Your task to perform on an android device: Add "logitech g502" to the cart on costco, then select checkout. Image 0: 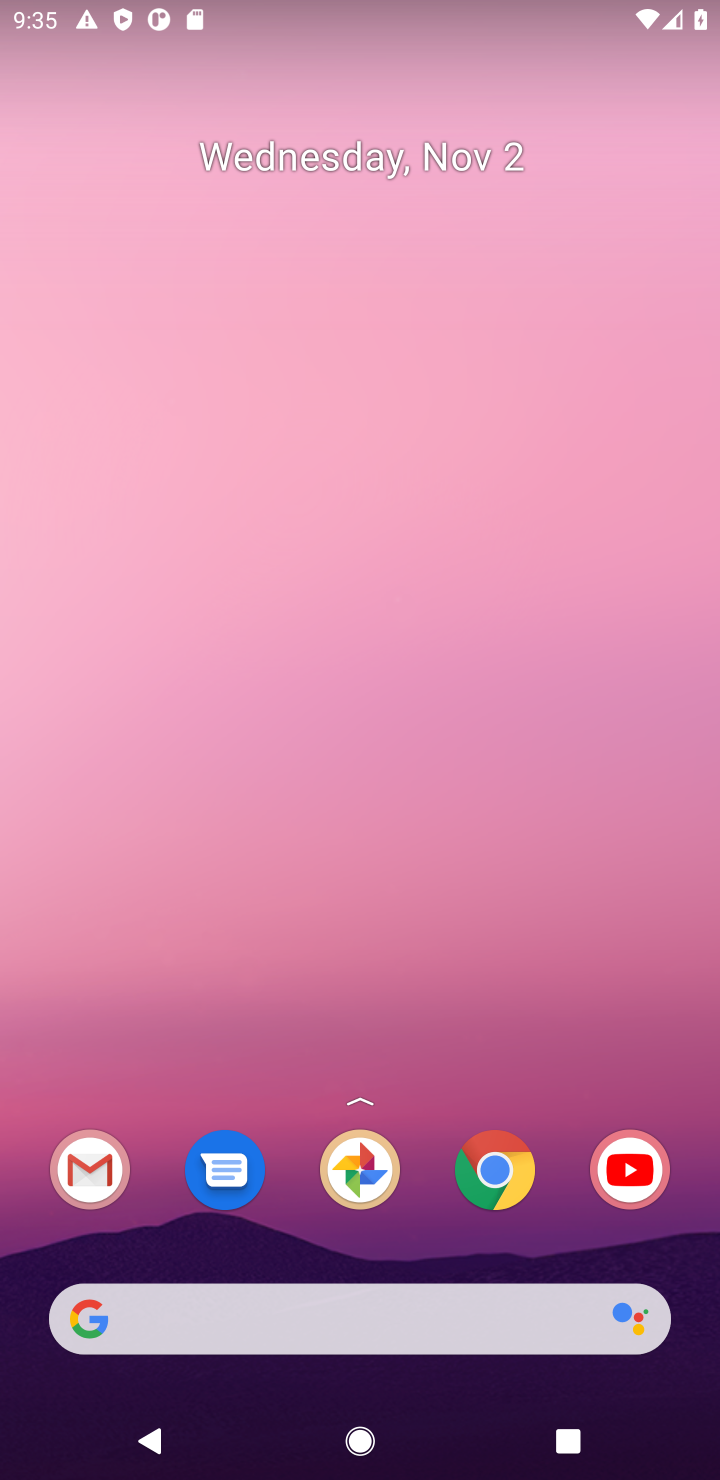
Step 0: click (507, 1150)
Your task to perform on an android device: Add "logitech g502" to the cart on costco, then select checkout. Image 1: 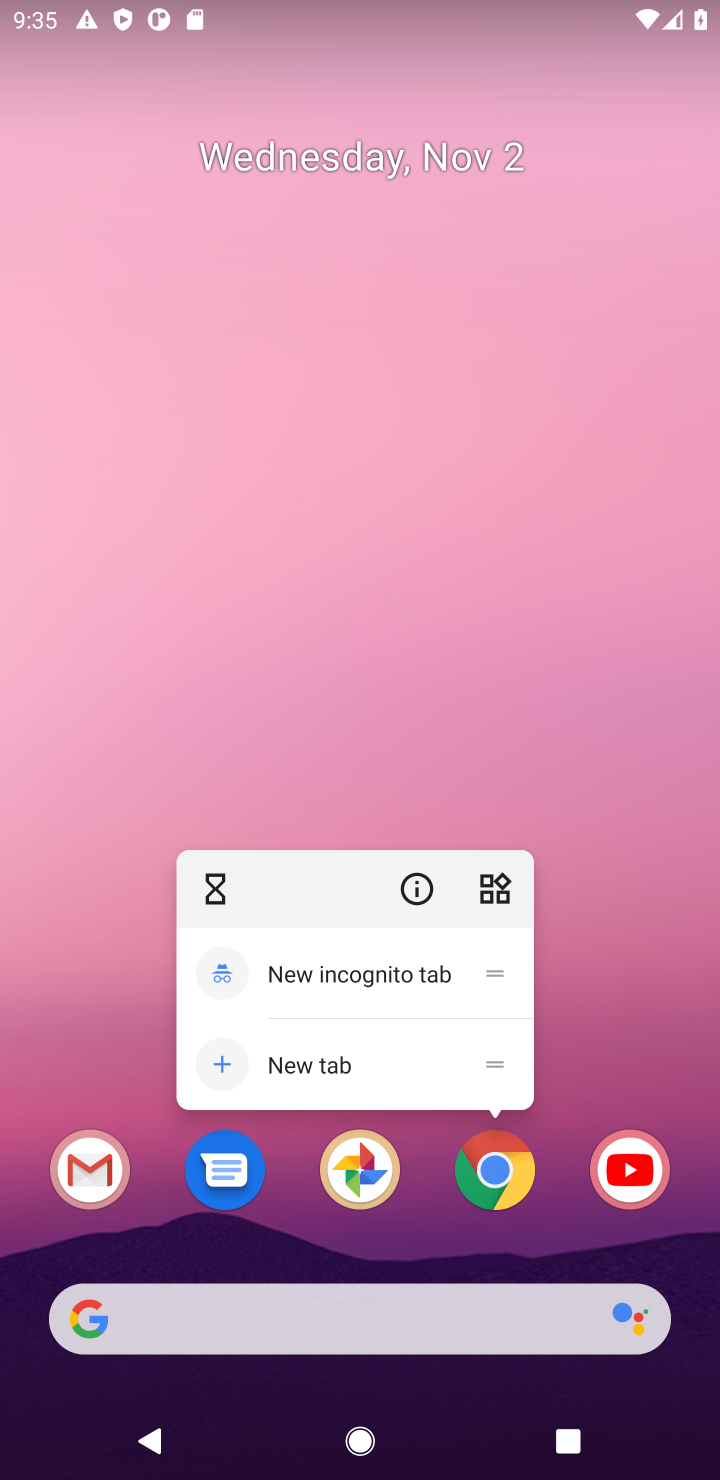
Step 1: click (517, 1168)
Your task to perform on an android device: Add "logitech g502" to the cart on costco, then select checkout. Image 2: 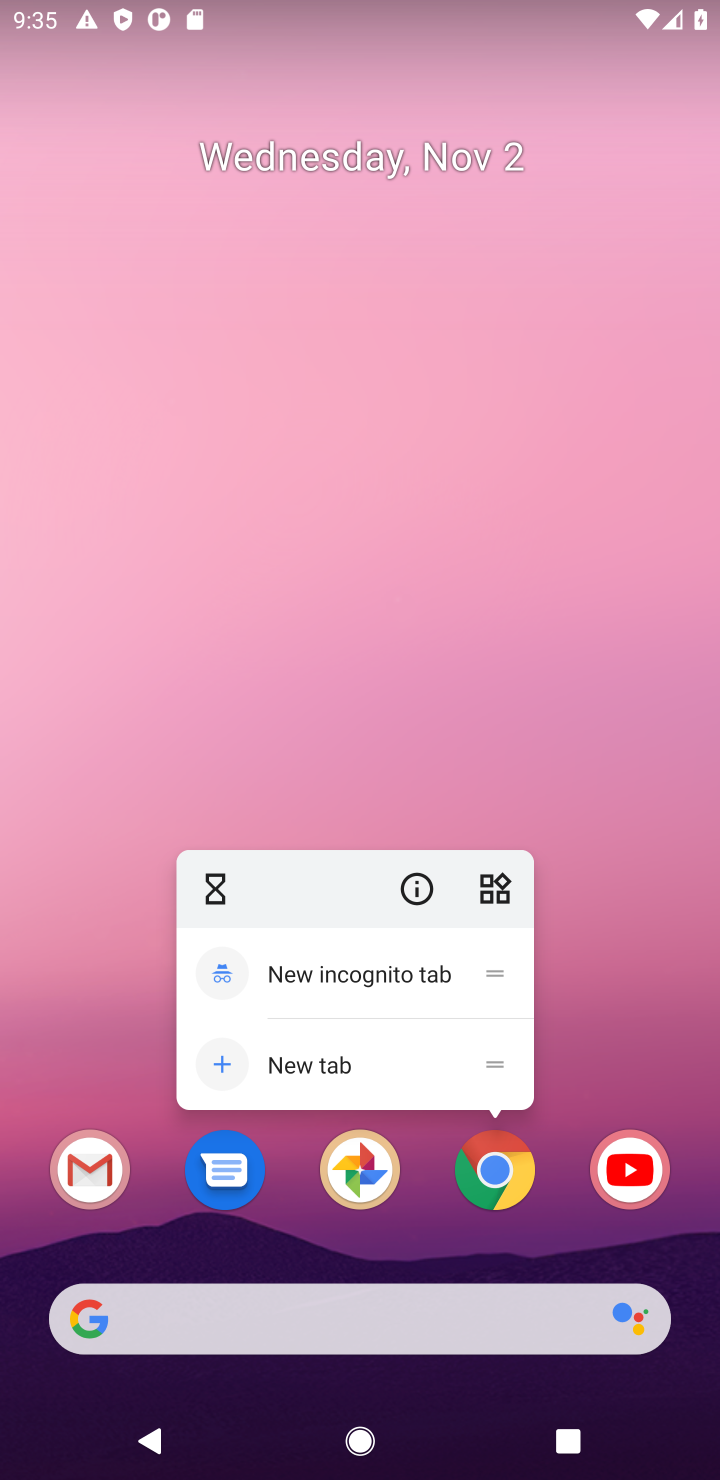
Step 2: click (495, 1184)
Your task to perform on an android device: Add "logitech g502" to the cart on costco, then select checkout. Image 3: 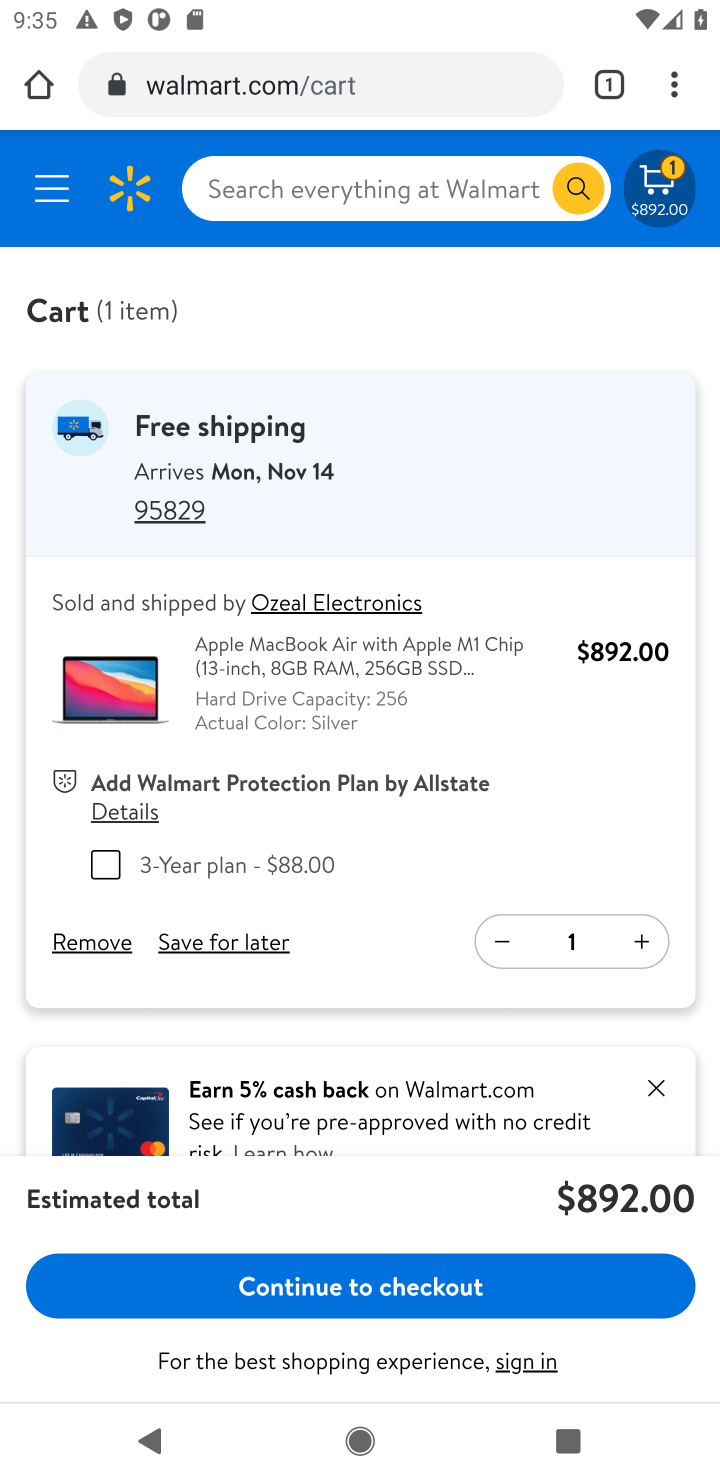
Step 3: click (384, 96)
Your task to perform on an android device: Add "logitech g502" to the cart on costco, then select checkout. Image 4: 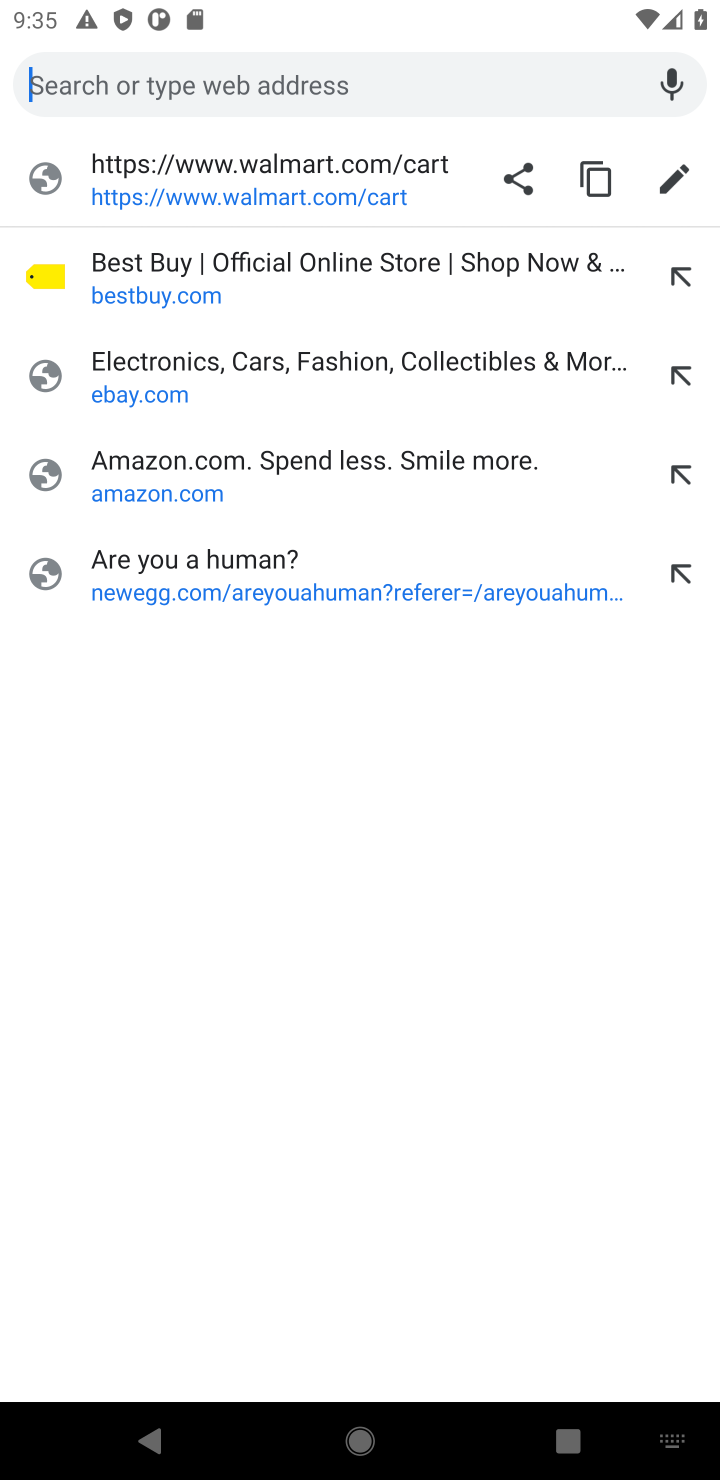
Step 4: type "costco"
Your task to perform on an android device: Add "logitech g502" to the cart on costco, then select checkout. Image 5: 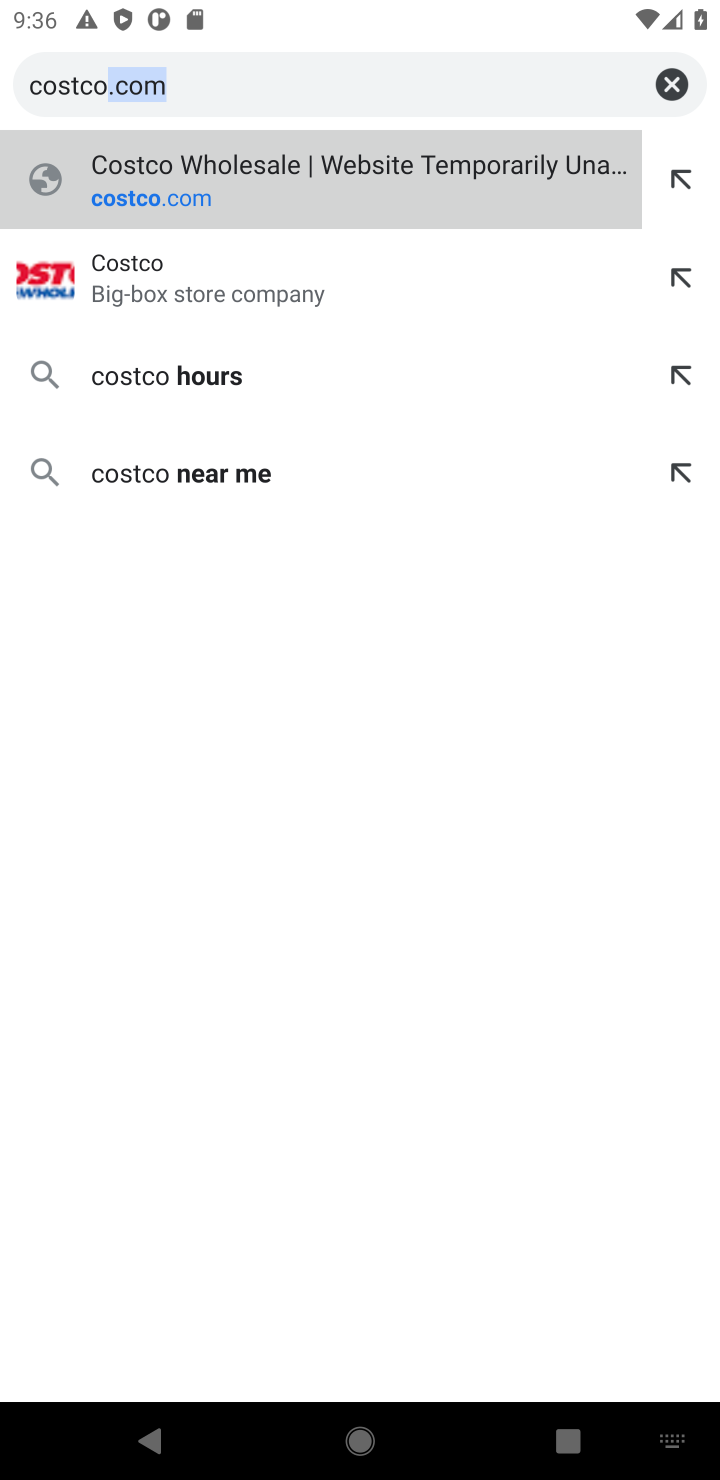
Step 5: press enter
Your task to perform on an android device: Add "logitech g502" to the cart on costco, then select checkout. Image 6: 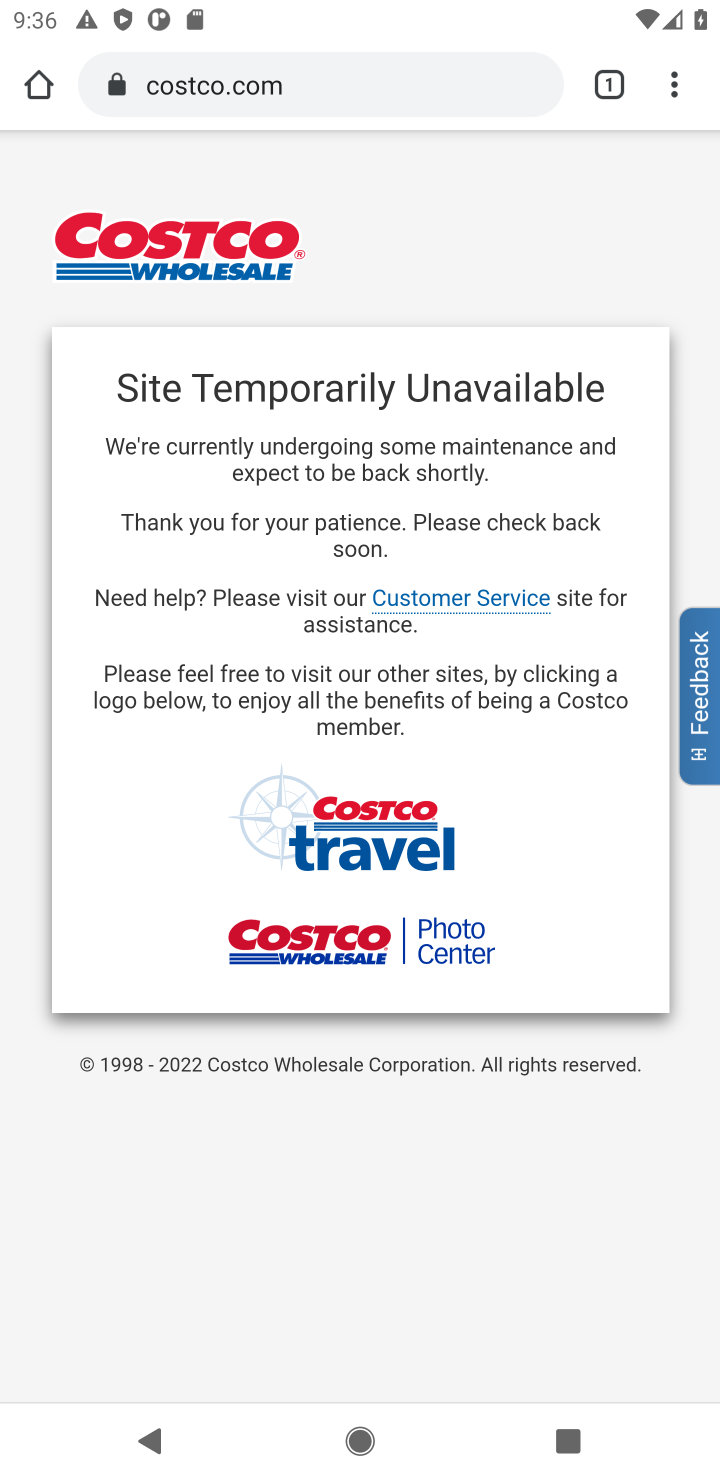
Step 6: task complete